Your task to perform on an android device: Open battery settings Image 0: 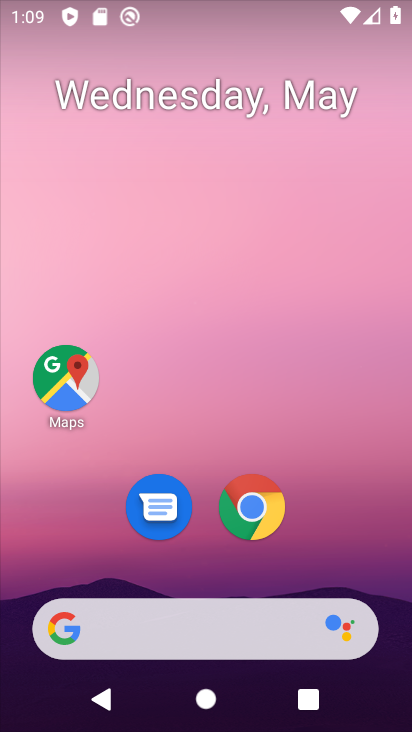
Step 0: drag from (187, 580) to (253, 261)
Your task to perform on an android device: Open battery settings Image 1: 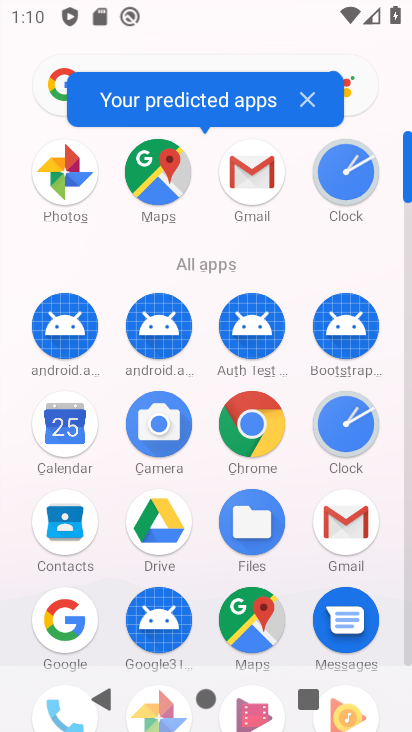
Step 1: drag from (200, 273) to (209, 164)
Your task to perform on an android device: Open battery settings Image 2: 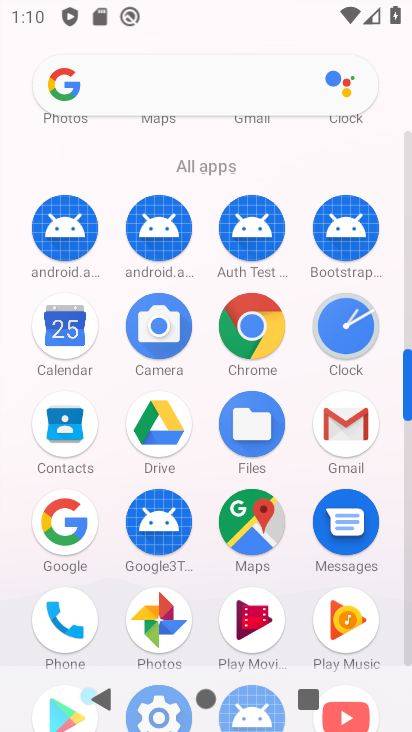
Step 2: drag from (227, 197) to (229, 53)
Your task to perform on an android device: Open battery settings Image 3: 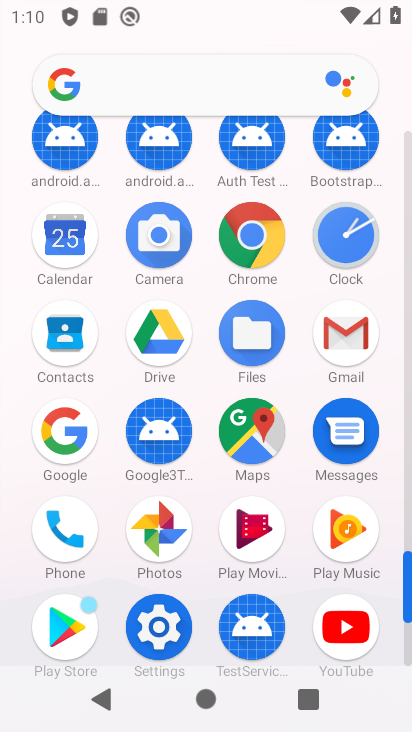
Step 3: click (166, 616)
Your task to perform on an android device: Open battery settings Image 4: 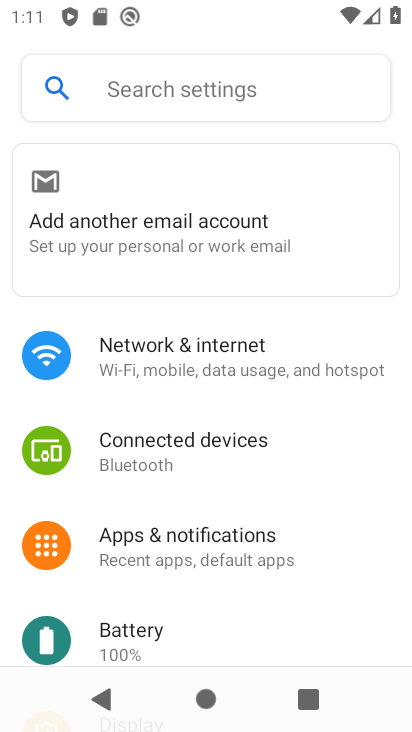
Step 4: drag from (205, 568) to (265, 398)
Your task to perform on an android device: Open battery settings Image 5: 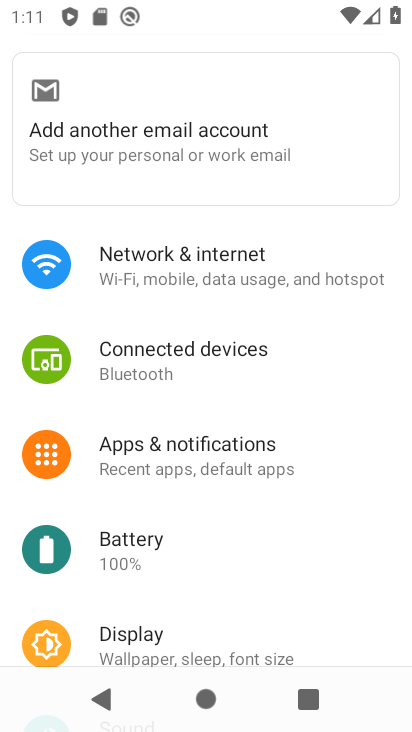
Step 5: click (172, 553)
Your task to perform on an android device: Open battery settings Image 6: 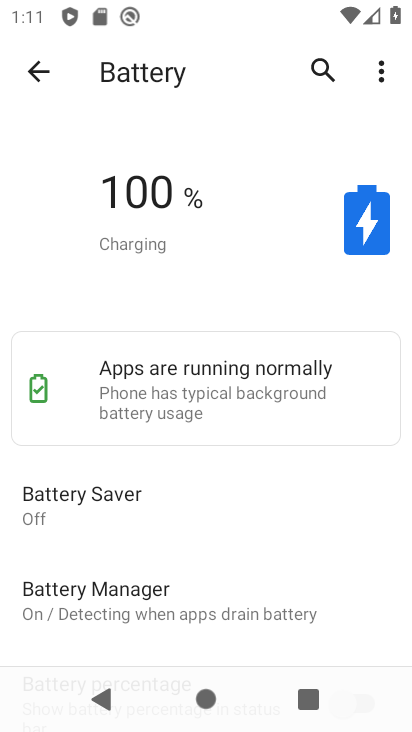
Step 6: task complete